Your task to perform on an android device: What is the news today? Image 0: 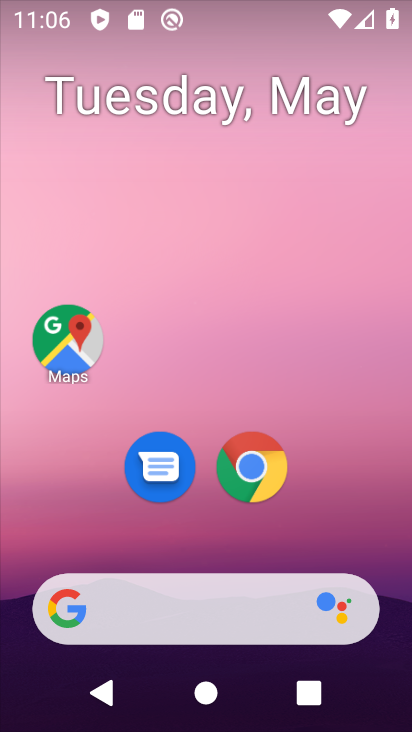
Step 0: drag from (375, 519) to (246, 0)
Your task to perform on an android device: What is the news today? Image 1: 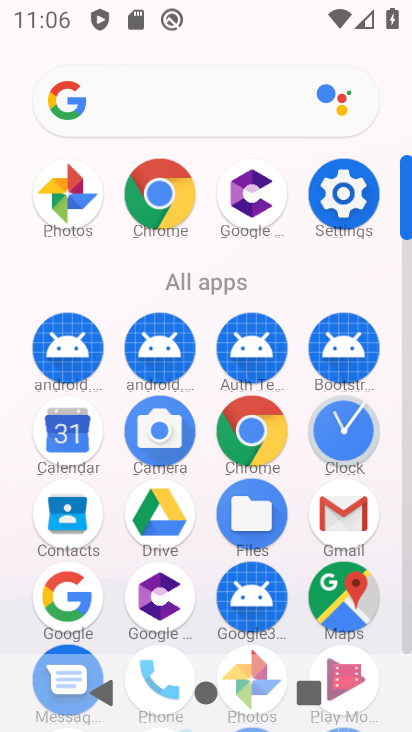
Step 1: drag from (9, 594) to (26, 212)
Your task to perform on an android device: What is the news today? Image 2: 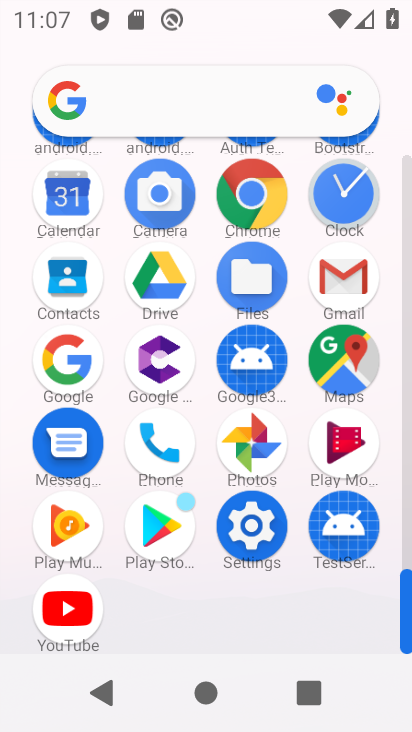
Step 2: click (243, 186)
Your task to perform on an android device: What is the news today? Image 3: 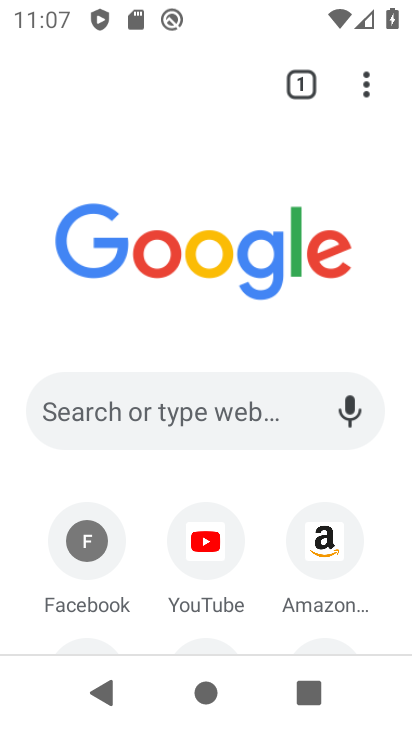
Step 3: click (157, 403)
Your task to perform on an android device: What is the news today? Image 4: 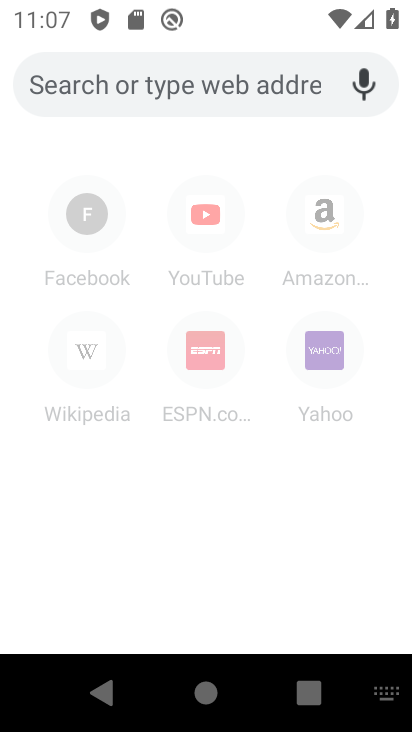
Step 4: click (126, 258)
Your task to perform on an android device: What is the news today? Image 5: 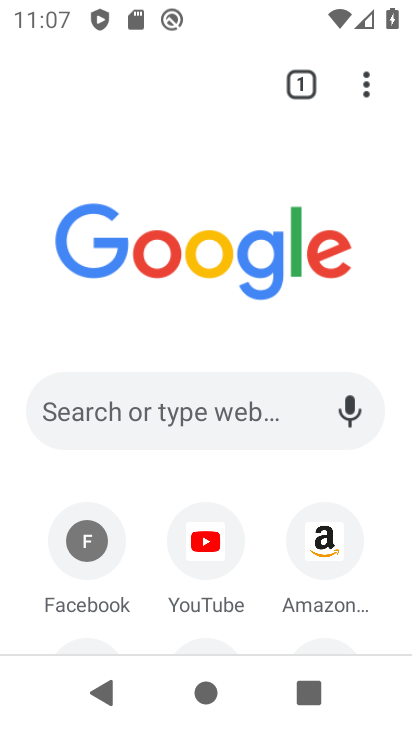
Step 5: type "What is the news today?"
Your task to perform on an android device: What is the news today? Image 6: 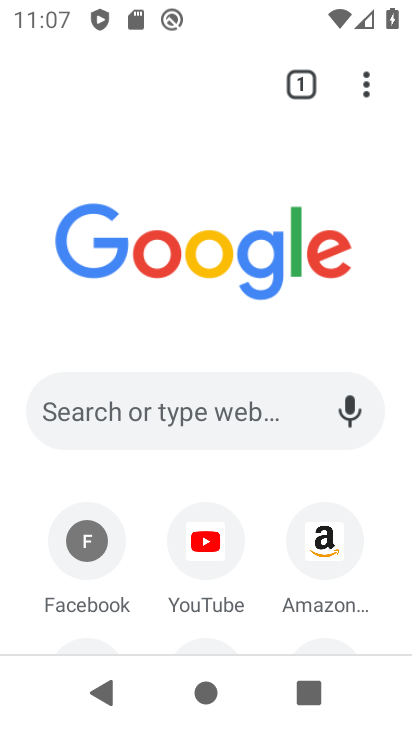
Step 6: click (212, 411)
Your task to perform on an android device: What is the news today? Image 7: 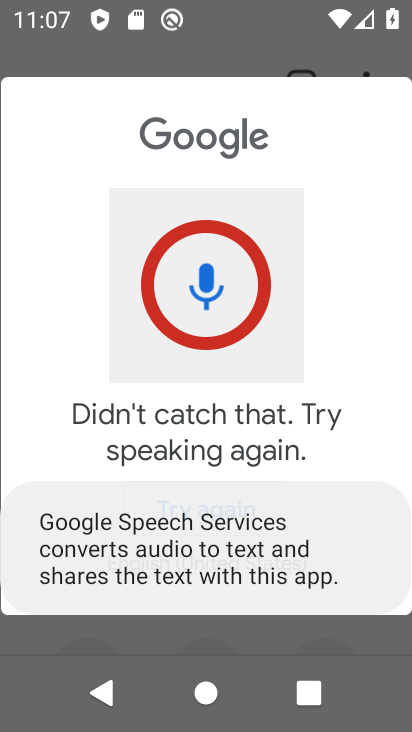
Step 7: type ""
Your task to perform on an android device: What is the news today? Image 8: 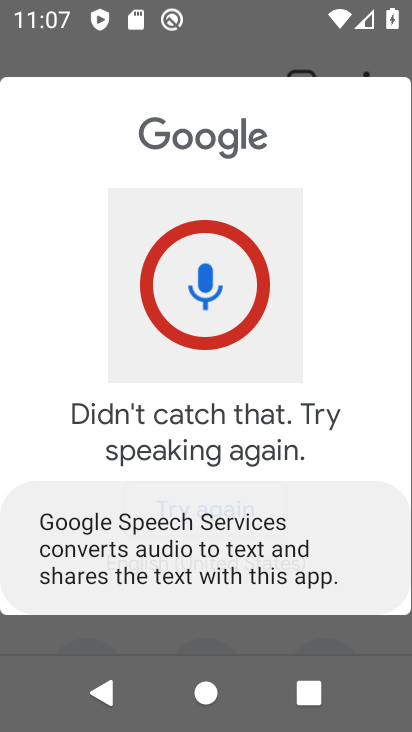
Step 8: click (257, 403)
Your task to perform on an android device: What is the news today? Image 9: 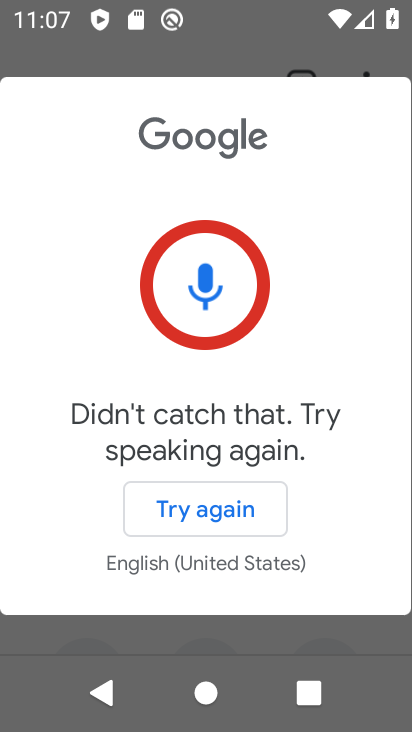
Step 9: click (198, 58)
Your task to perform on an android device: What is the news today? Image 10: 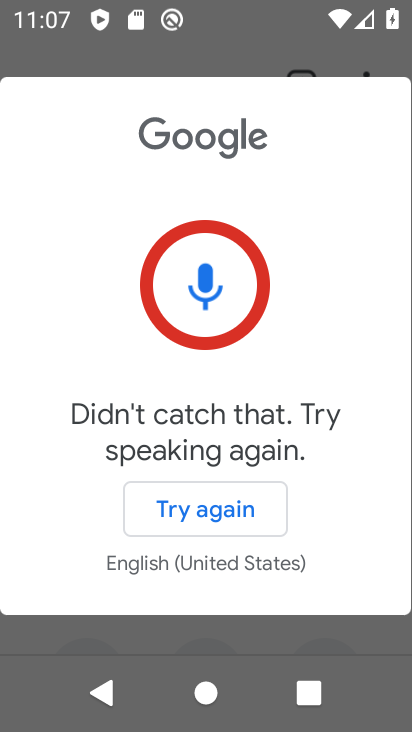
Step 10: press back button
Your task to perform on an android device: What is the news today? Image 11: 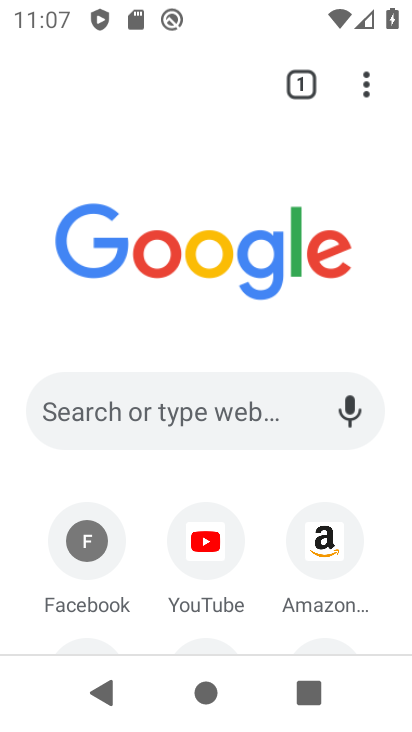
Step 11: click (162, 413)
Your task to perform on an android device: What is the news today? Image 12: 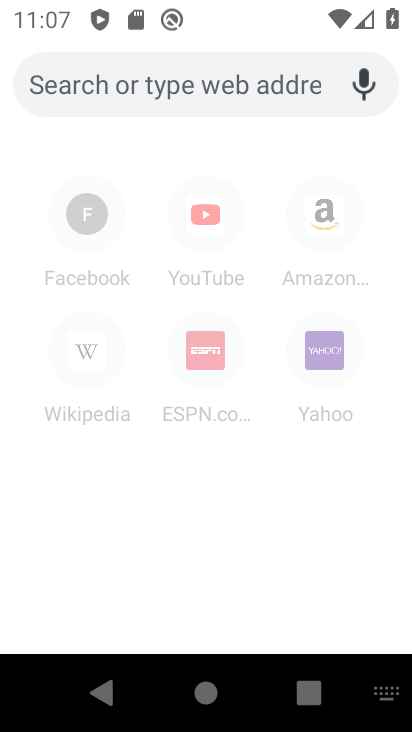
Step 12: type "What is the news today?"
Your task to perform on an android device: What is the news today? Image 13: 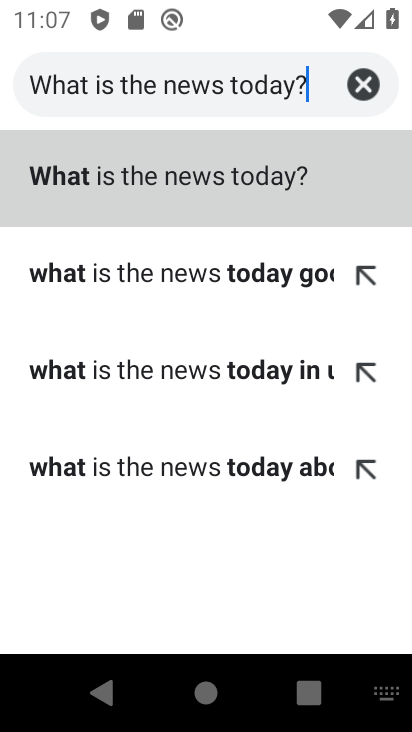
Step 13: type ""
Your task to perform on an android device: What is the news today? Image 14: 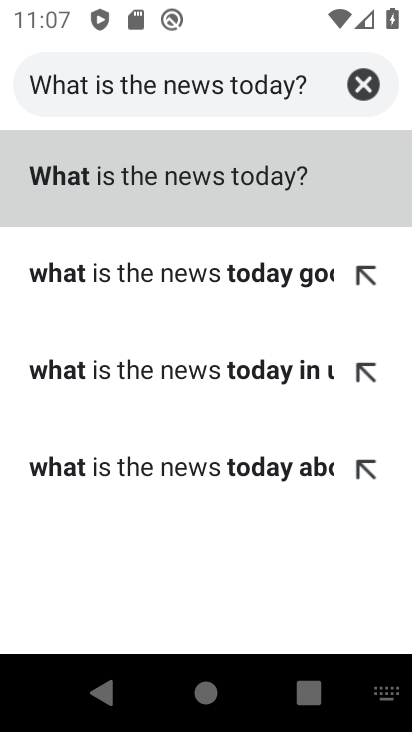
Step 14: click (208, 191)
Your task to perform on an android device: What is the news today? Image 15: 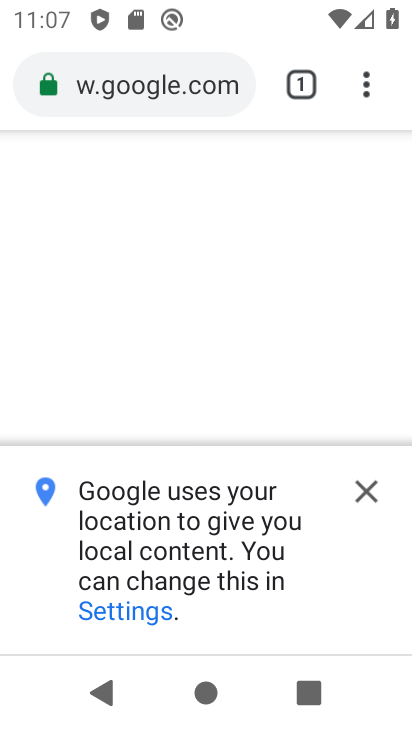
Step 15: click (368, 485)
Your task to perform on an android device: What is the news today? Image 16: 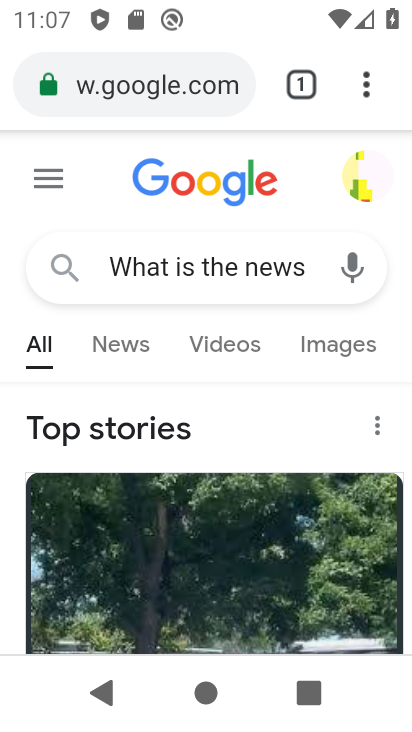
Step 16: drag from (263, 570) to (265, 172)
Your task to perform on an android device: What is the news today? Image 17: 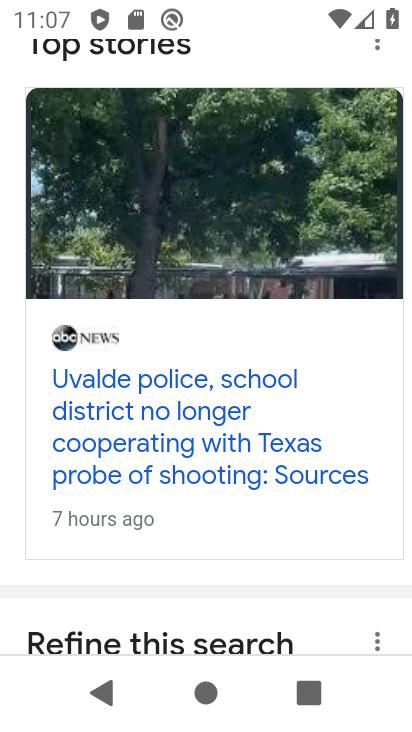
Step 17: drag from (254, 538) to (247, 215)
Your task to perform on an android device: What is the news today? Image 18: 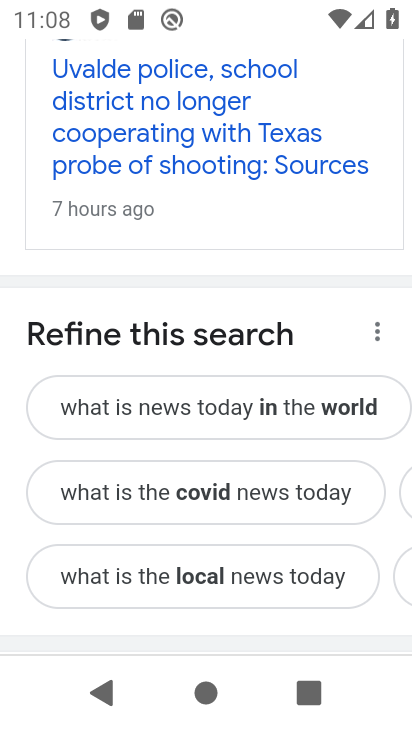
Step 18: drag from (259, 212) to (220, 609)
Your task to perform on an android device: What is the news today? Image 19: 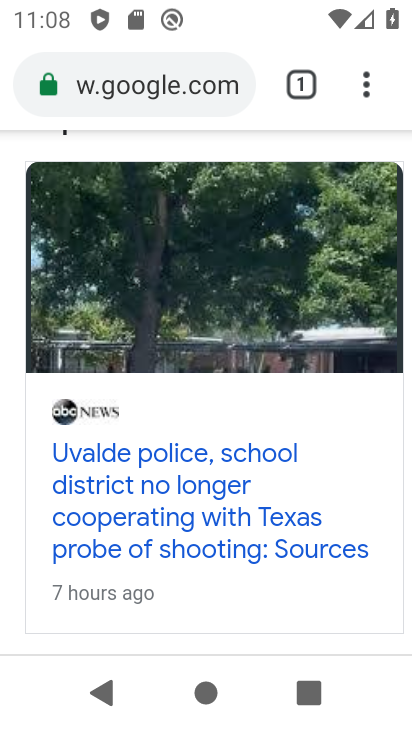
Step 19: drag from (232, 262) to (215, 580)
Your task to perform on an android device: What is the news today? Image 20: 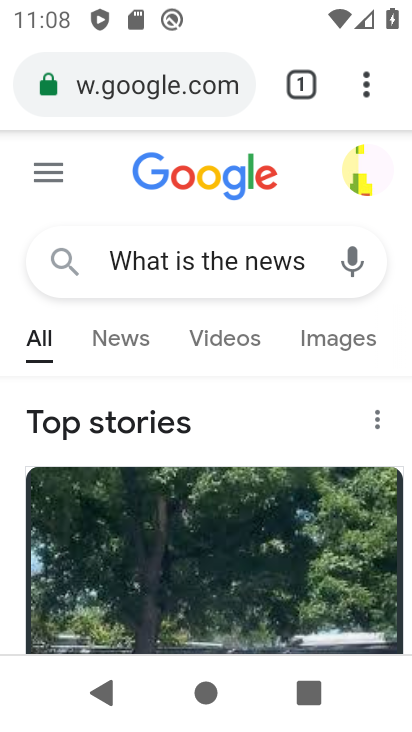
Step 20: click (117, 339)
Your task to perform on an android device: What is the news today? Image 21: 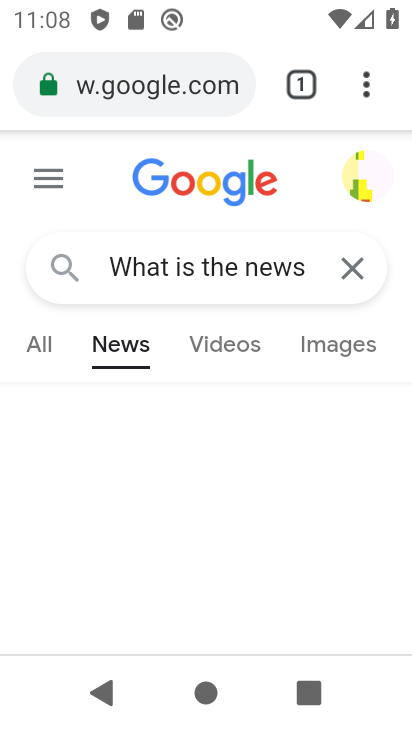
Step 21: task complete